Your task to perform on an android device: open app "WhatsApp Messenger" (install if not already installed), go to login, and select forgot password Image 0: 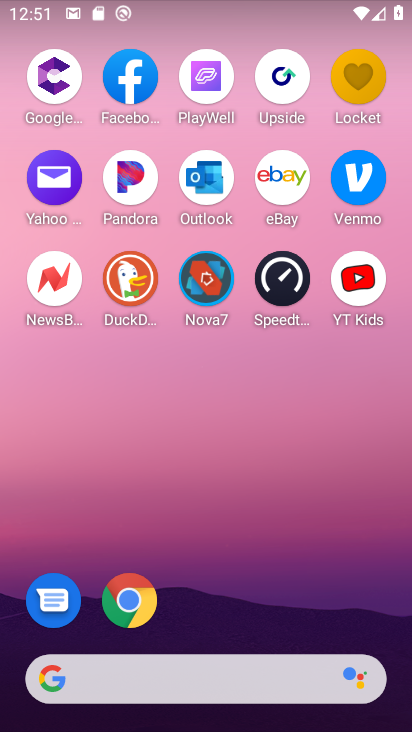
Step 0: drag from (293, 580) to (277, 207)
Your task to perform on an android device: open app "WhatsApp Messenger" (install if not already installed), go to login, and select forgot password Image 1: 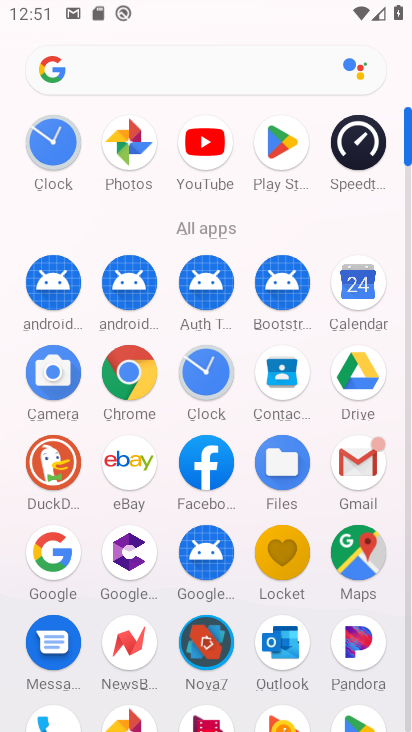
Step 1: click (277, 179)
Your task to perform on an android device: open app "WhatsApp Messenger" (install if not already installed), go to login, and select forgot password Image 2: 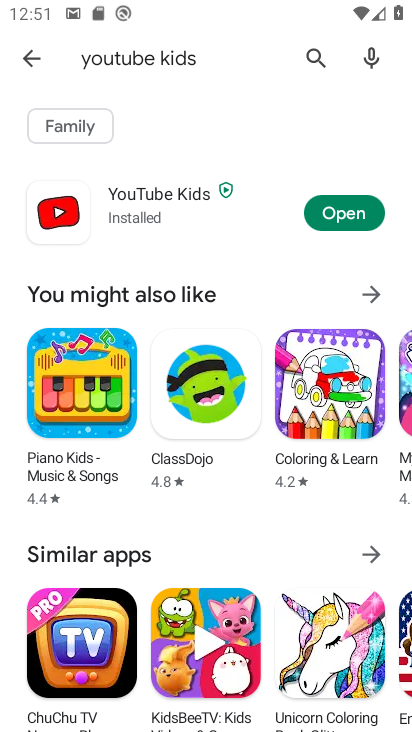
Step 2: click (312, 50)
Your task to perform on an android device: open app "WhatsApp Messenger" (install if not already installed), go to login, and select forgot password Image 3: 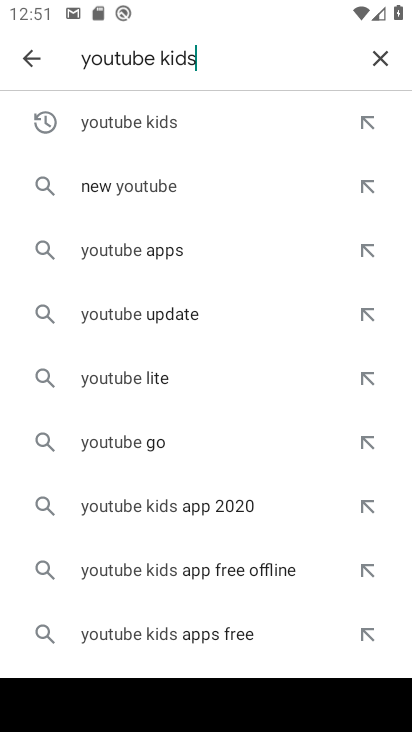
Step 3: click (379, 60)
Your task to perform on an android device: open app "WhatsApp Messenger" (install if not already installed), go to login, and select forgot password Image 4: 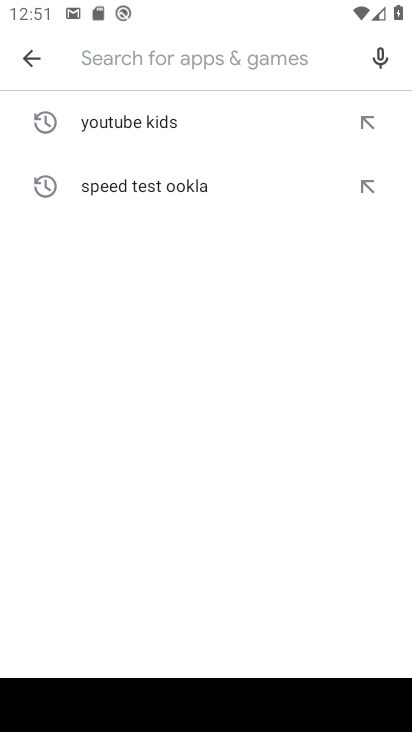
Step 4: type "whatsapp"
Your task to perform on an android device: open app "WhatsApp Messenger" (install if not already installed), go to login, and select forgot password Image 5: 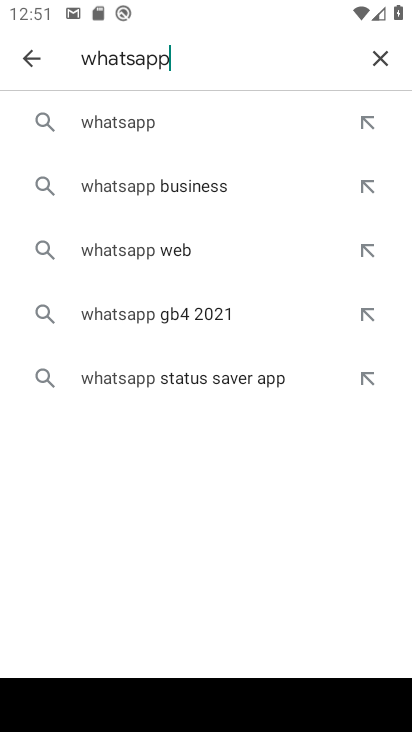
Step 5: click (213, 135)
Your task to perform on an android device: open app "WhatsApp Messenger" (install if not already installed), go to login, and select forgot password Image 6: 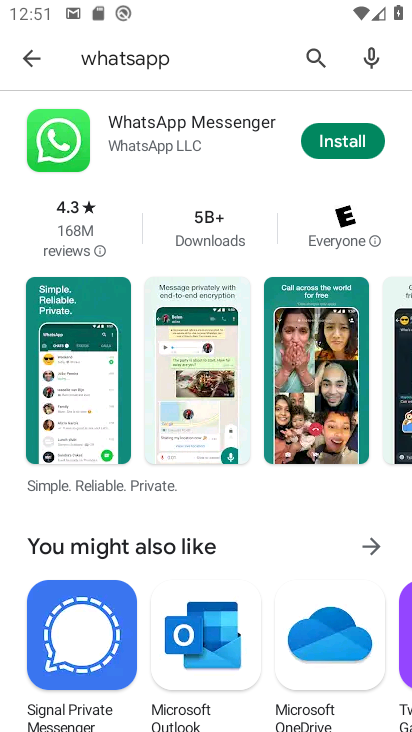
Step 6: click (311, 139)
Your task to perform on an android device: open app "WhatsApp Messenger" (install if not already installed), go to login, and select forgot password Image 7: 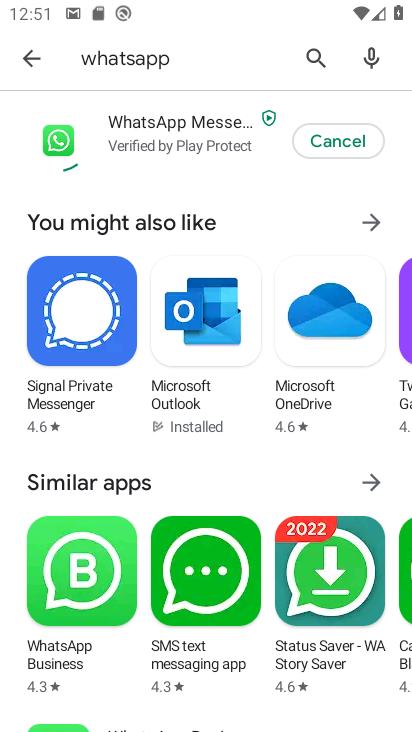
Step 7: task complete